Your task to perform on an android device: Search for Italian restaurants on Maps Image 0: 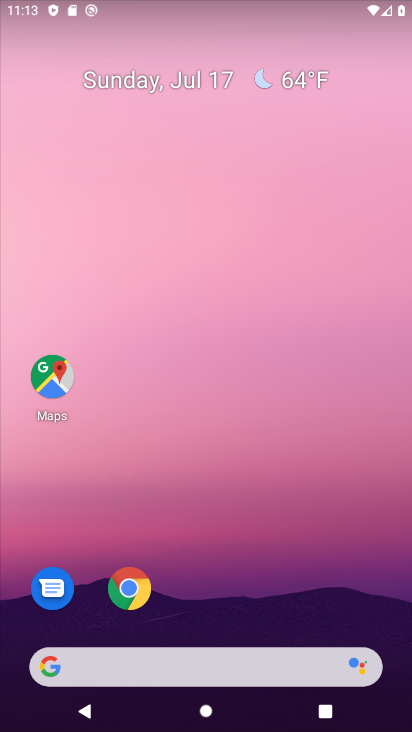
Step 0: drag from (229, 662) to (236, 71)
Your task to perform on an android device: Search for Italian restaurants on Maps Image 1: 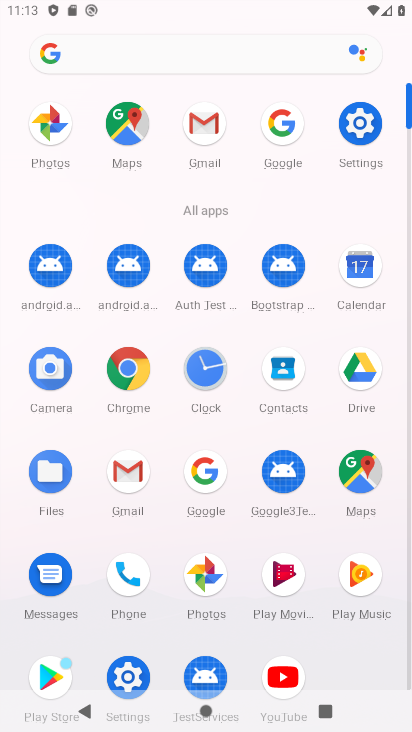
Step 1: click (353, 475)
Your task to perform on an android device: Search for Italian restaurants on Maps Image 2: 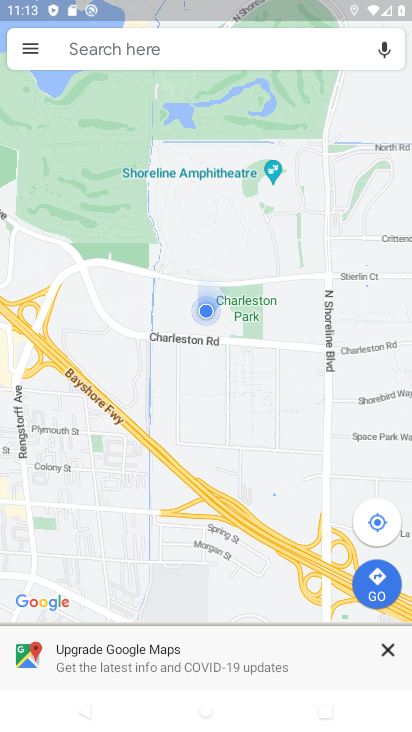
Step 2: click (131, 48)
Your task to perform on an android device: Search for Italian restaurants on Maps Image 3: 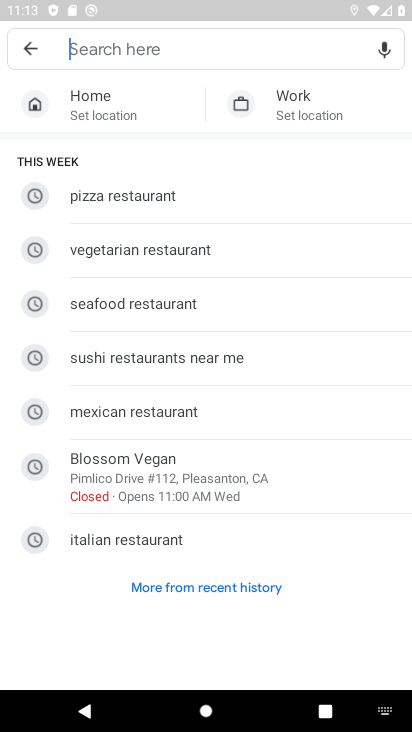
Step 3: click (156, 546)
Your task to perform on an android device: Search for Italian restaurants on Maps Image 4: 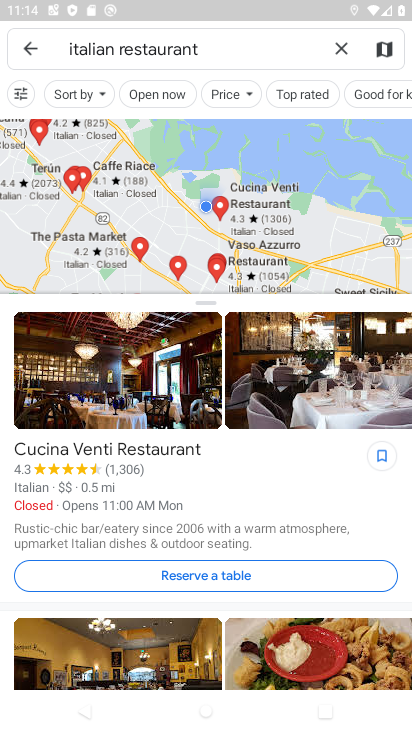
Step 4: task complete